Your task to perform on an android device: How much does the Vizio TV cost? Image 0: 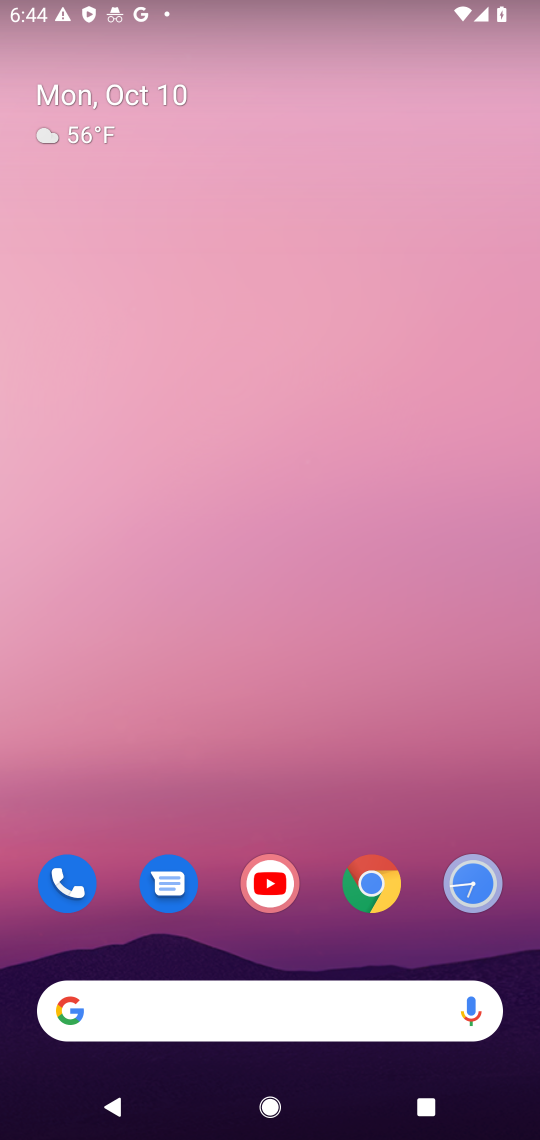
Step 0: drag from (390, 894) to (333, 59)
Your task to perform on an android device: How much does the Vizio TV cost? Image 1: 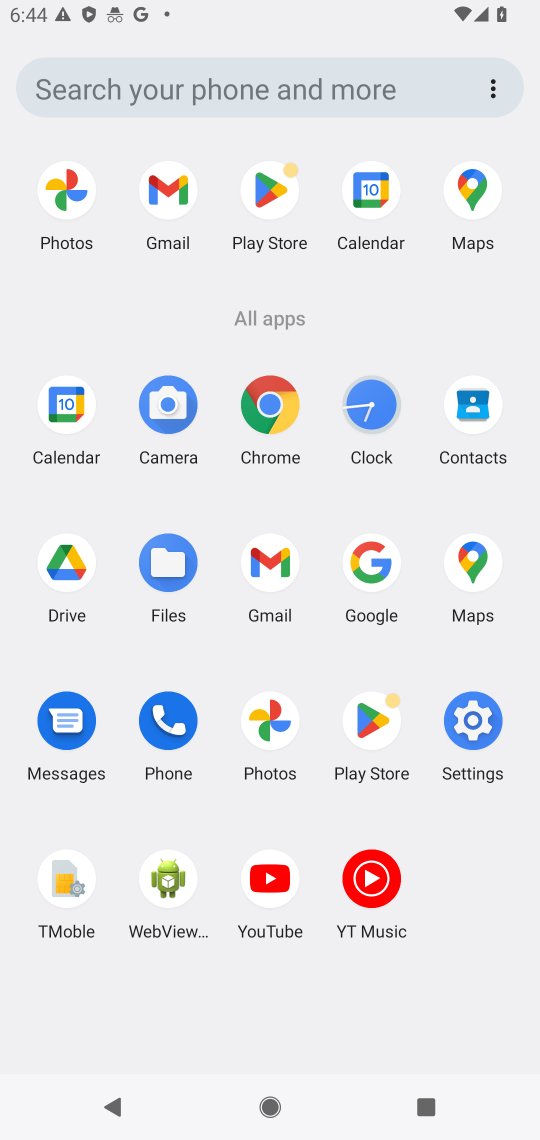
Step 1: click (395, 566)
Your task to perform on an android device: How much does the Vizio TV cost? Image 2: 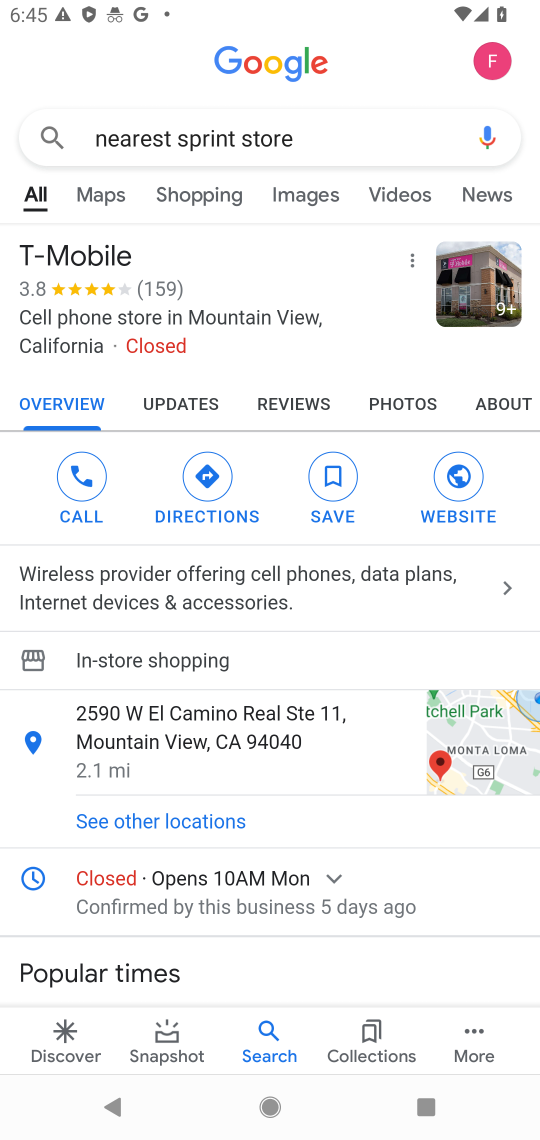
Step 2: click (446, 143)
Your task to perform on an android device: How much does the Vizio TV cost? Image 3: 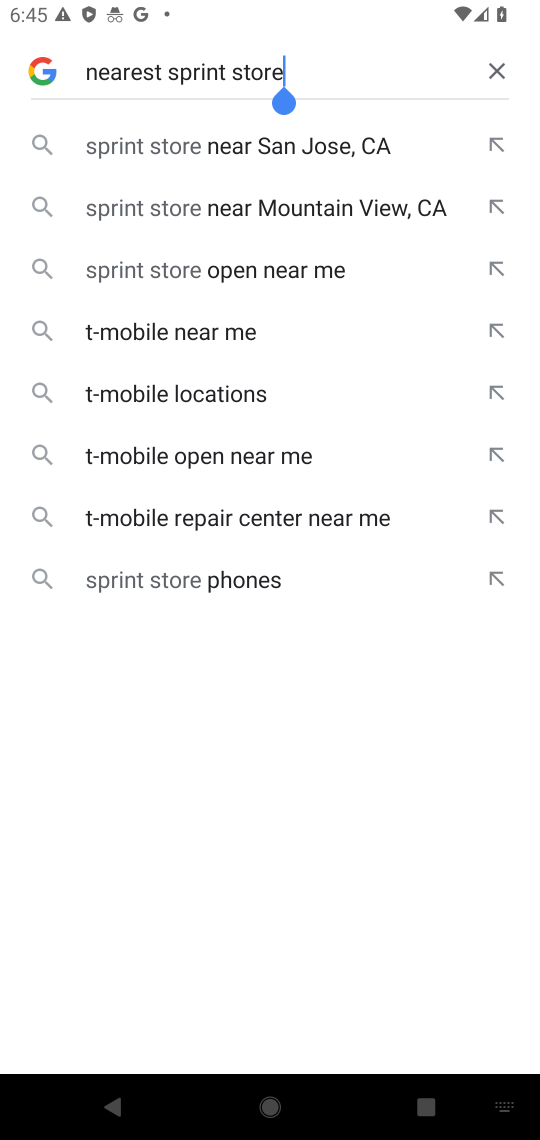
Step 3: click (493, 74)
Your task to perform on an android device: How much does the Vizio TV cost? Image 4: 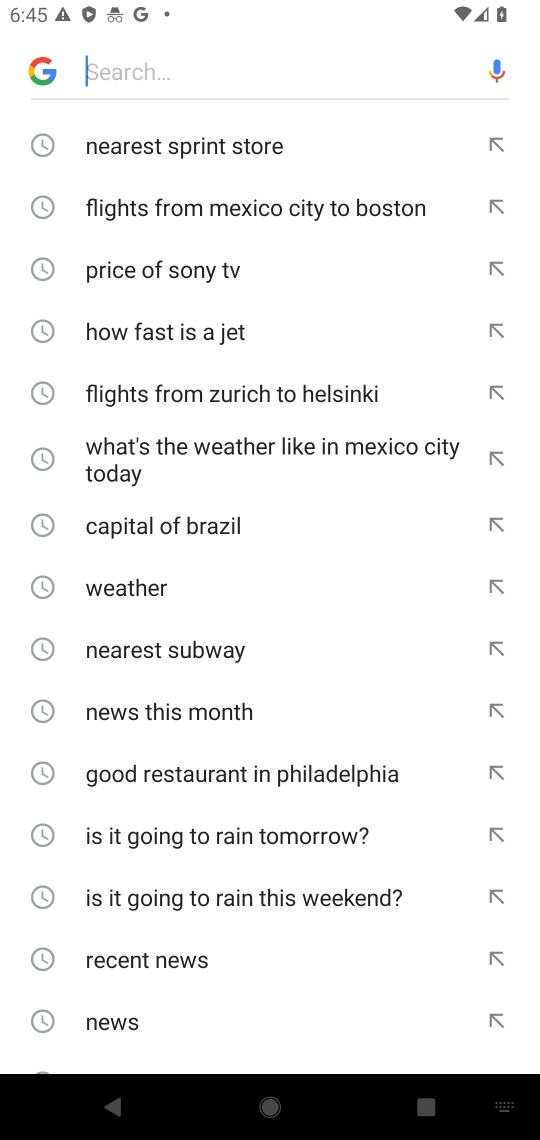
Step 4: type "Vizio TV cost"
Your task to perform on an android device: How much does the Vizio TV cost? Image 5: 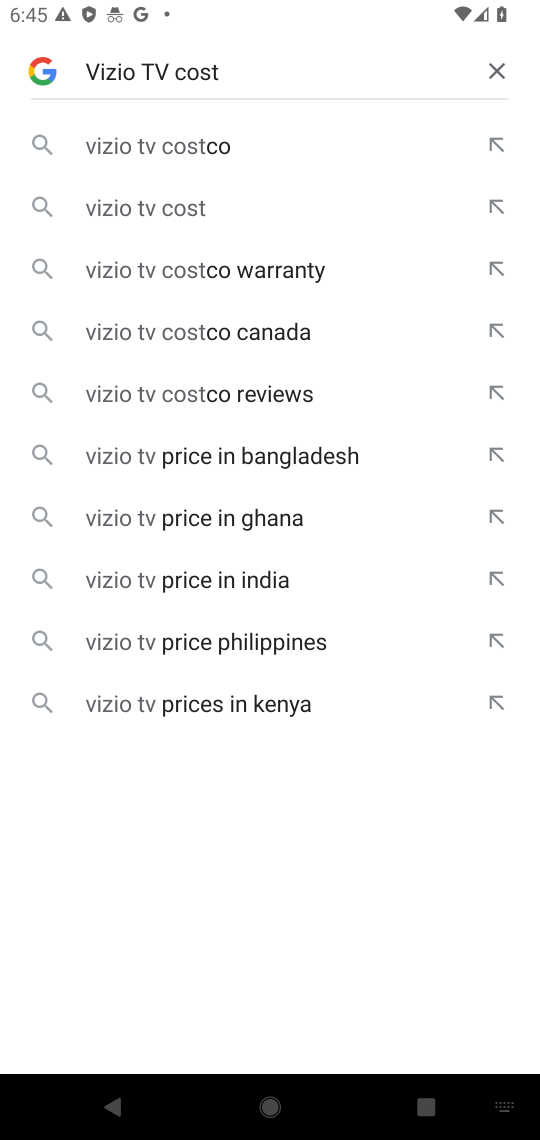
Step 5: click (299, 198)
Your task to perform on an android device: How much does the Vizio TV cost? Image 6: 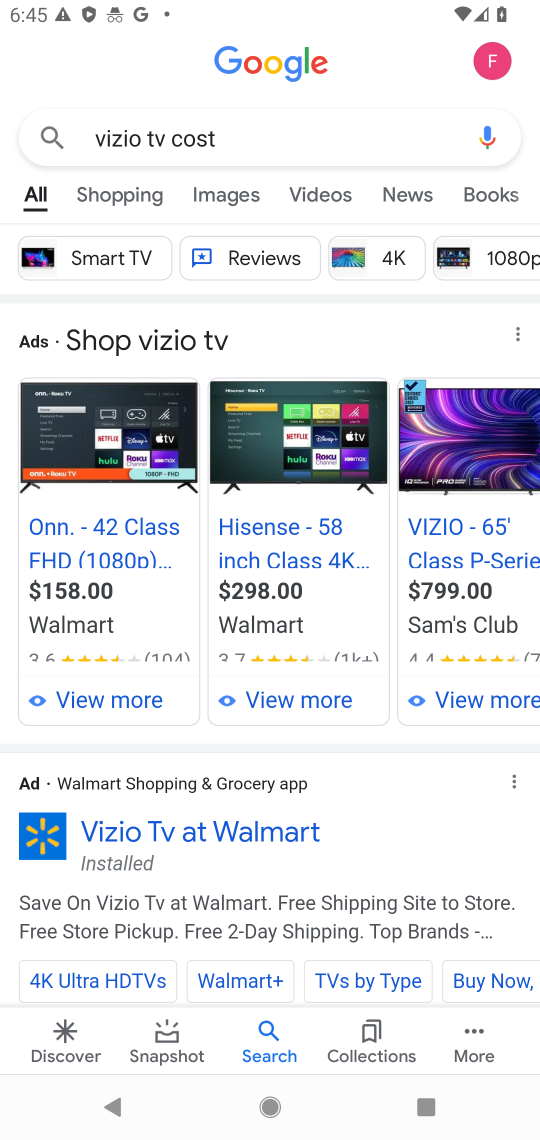
Step 6: task complete